Your task to perform on an android device: change timer sound Image 0: 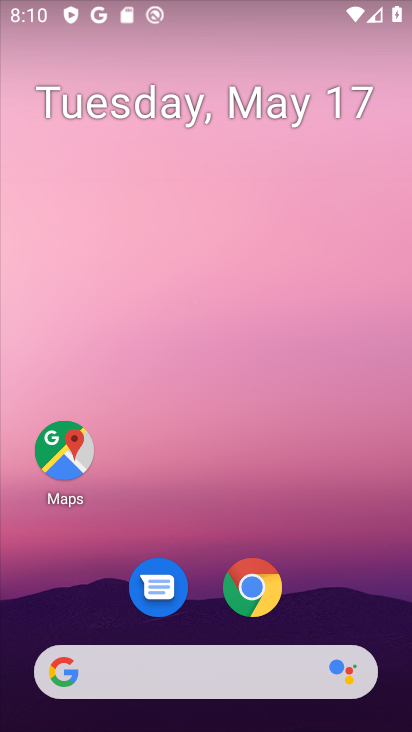
Step 0: drag from (53, 609) to (311, 133)
Your task to perform on an android device: change timer sound Image 1: 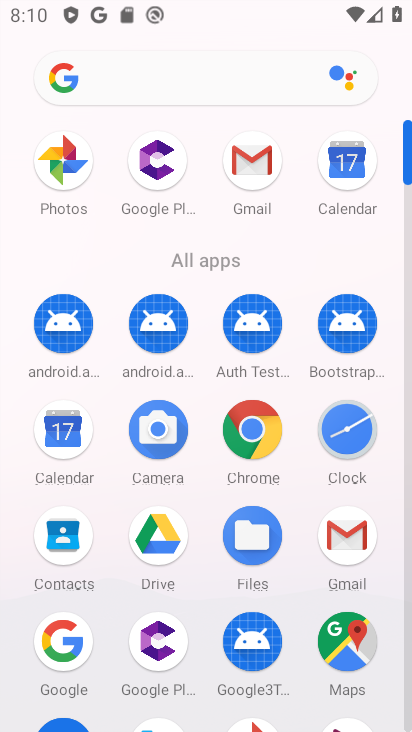
Step 1: click (342, 440)
Your task to perform on an android device: change timer sound Image 2: 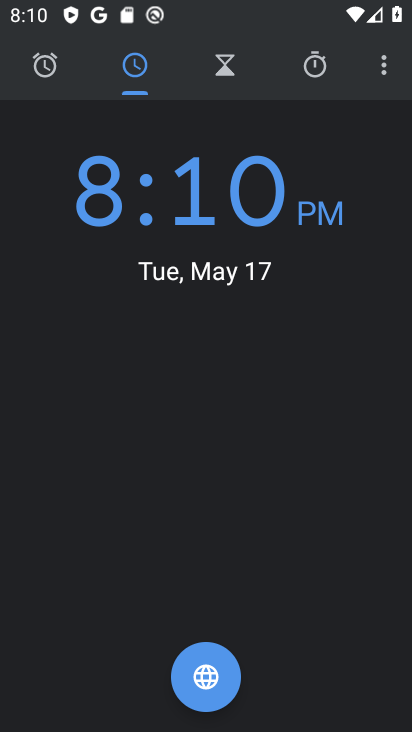
Step 2: click (378, 64)
Your task to perform on an android device: change timer sound Image 3: 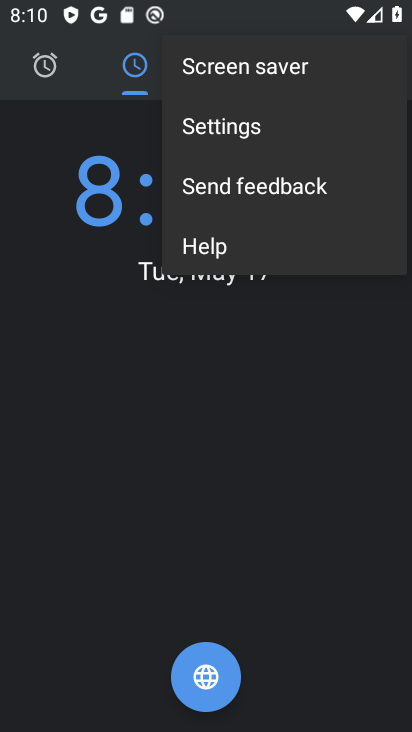
Step 3: click (245, 128)
Your task to perform on an android device: change timer sound Image 4: 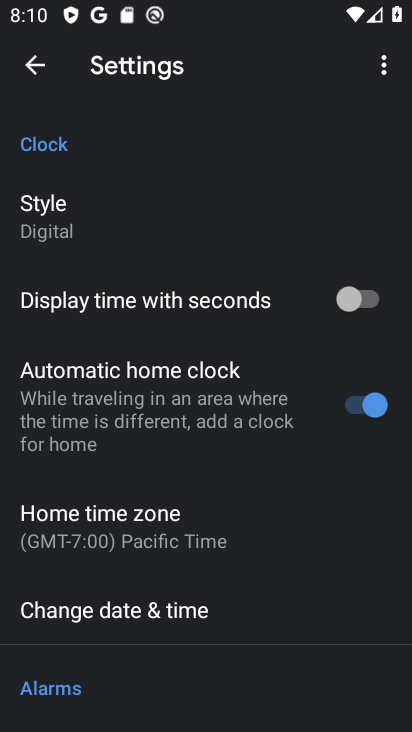
Step 4: drag from (0, 642) to (238, 95)
Your task to perform on an android device: change timer sound Image 5: 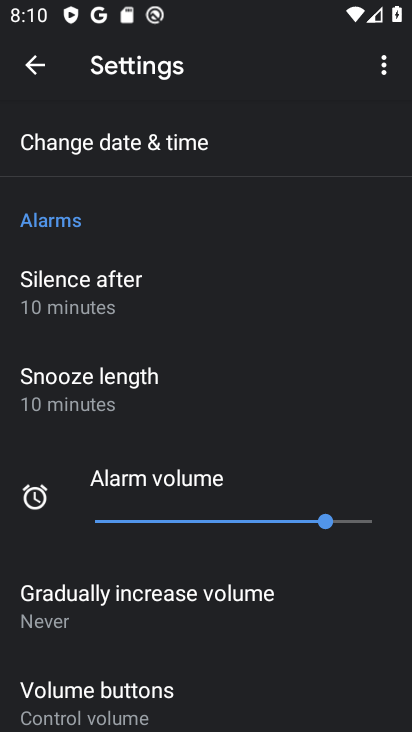
Step 5: drag from (8, 632) to (233, 127)
Your task to perform on an android device: change timer sound Image 6: 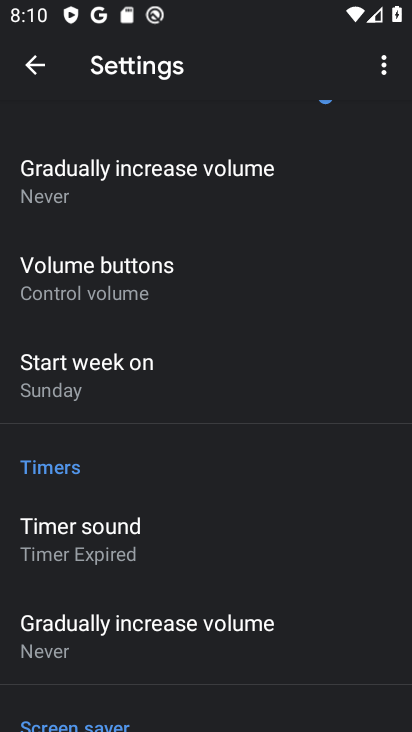
Step 6: click (70, 535)
Your task to perform on an android device: change timer sound Image 7: 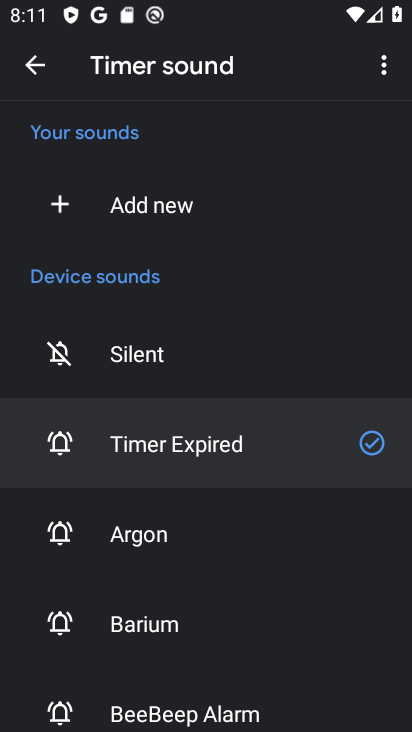
Step 7: task complete